Your task to perform on an android device: Open calendar and show me the second week of next month Image 0: 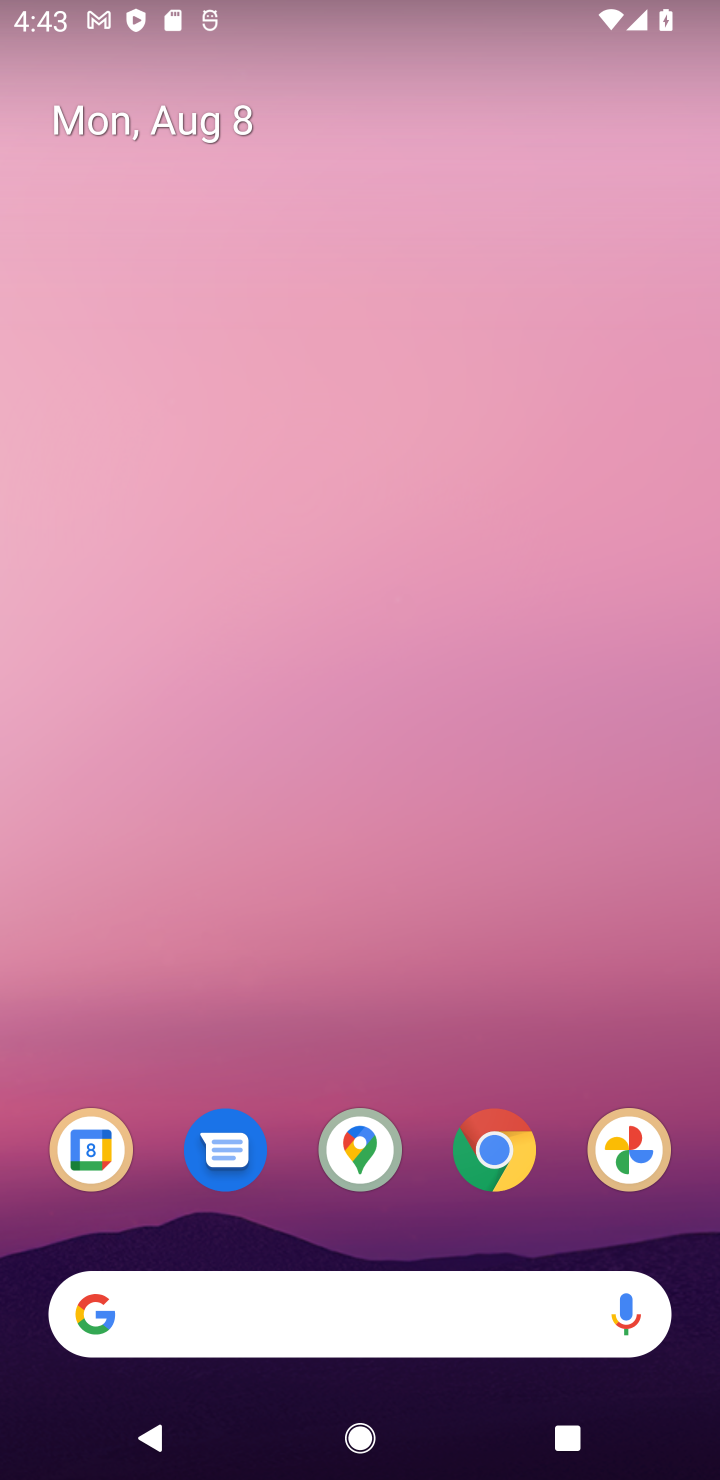
Step 0: drag from (427, 1220) to (445, 192)
Your task to perform on an android device: Open calendar and show me the second week of next month Image 1: 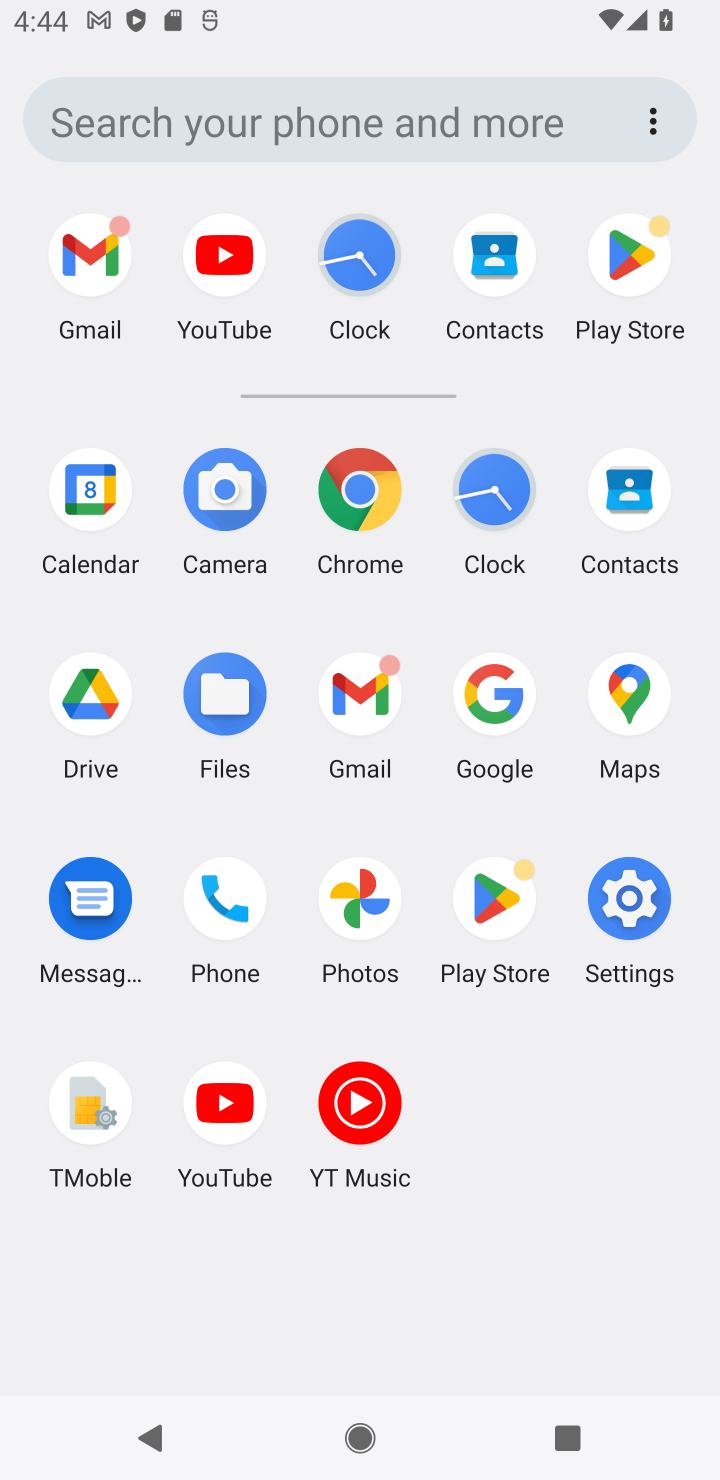
Step 1: task complete